Your task to perform on an android device: see tabs open on other devices in the chrome app Image 0: 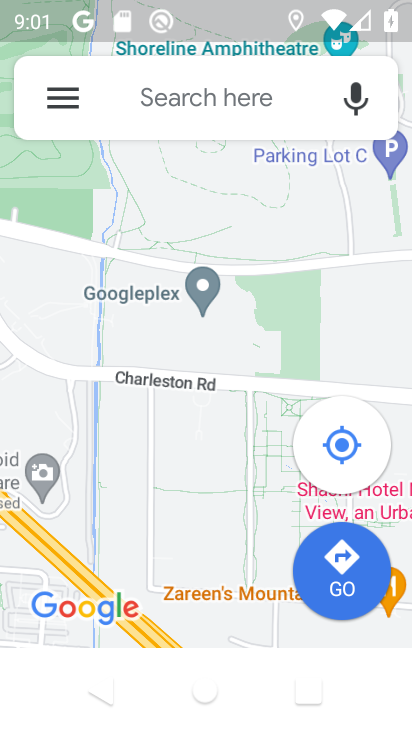
Step 0: press home button
Your task to perform on an android device: see tabs open on other devices in the chrome app Image 1: 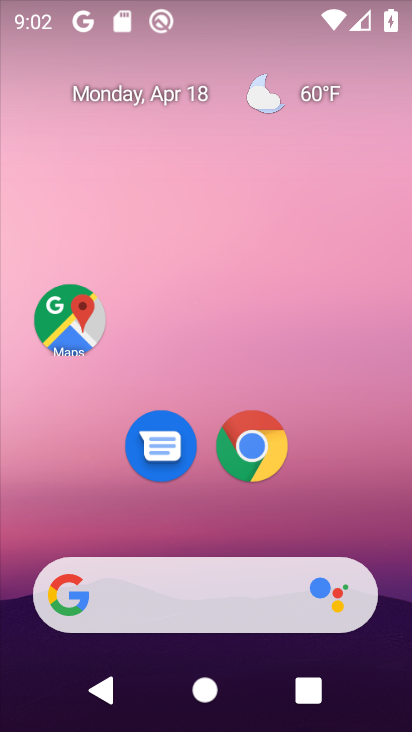
Step 1: drag from (349, 492) to (337, 120)
Your task to perform on an android device: see tabs open on other devices in the chrome app Image 2: 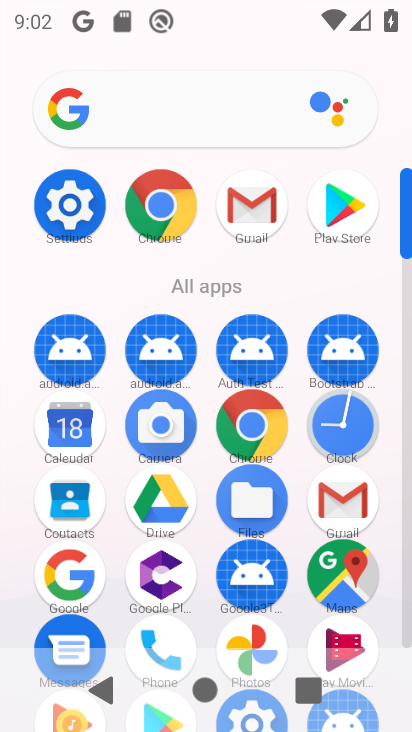
Step 2: click (261, 421)
Your task to perform on an android device: see tabs open on other devices in the chrome app Image 3: 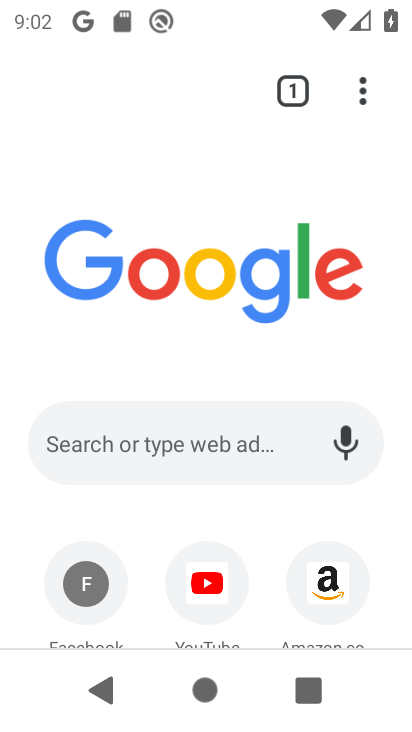
Step 3: click (365, 98)
Your task to perform on an android device: see tabs open on other devices in the chrome app Image 4: 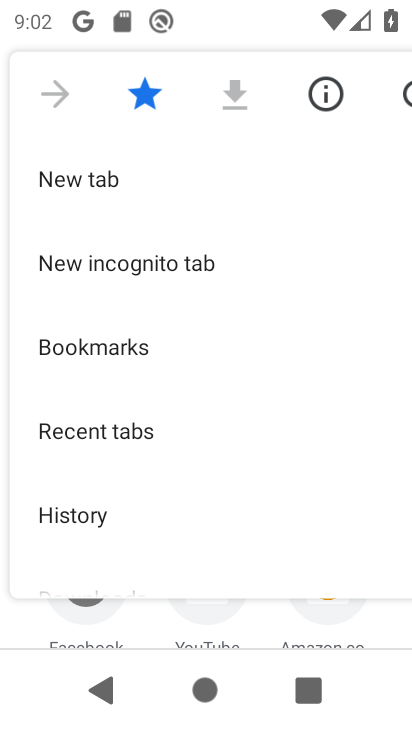
Step 4: click (122, 433)
Your task to perform on an android device: see tabs open on other devices in the chrome app Image 5: 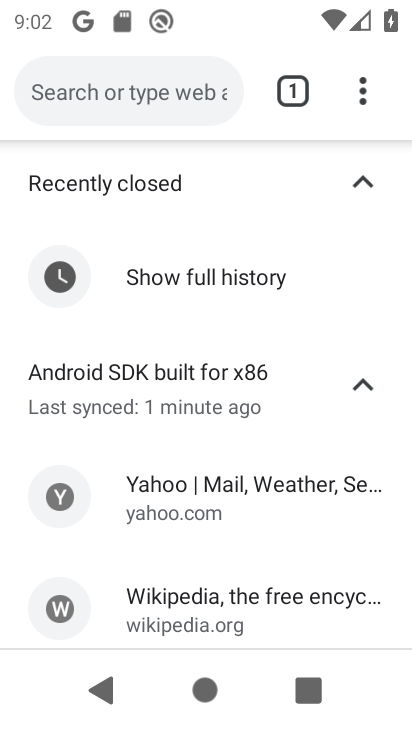
Step 5: click (291, 94)
Your task to perform on an android device: see tabs open on other devices in the chrome app Image 6: 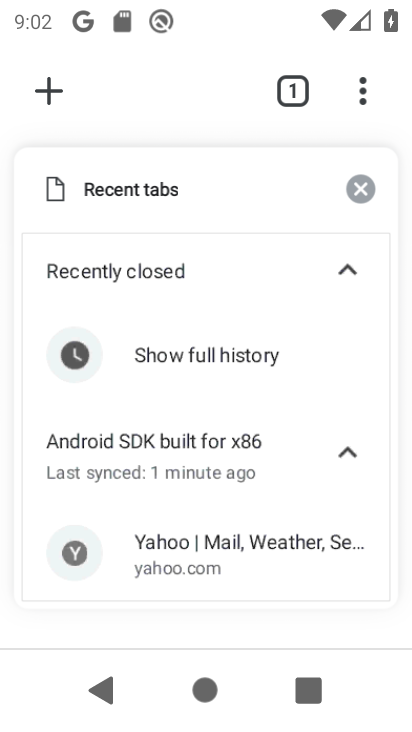
Step 6: task complete